Your task to perform on an android device: What's the weather? Image 0: 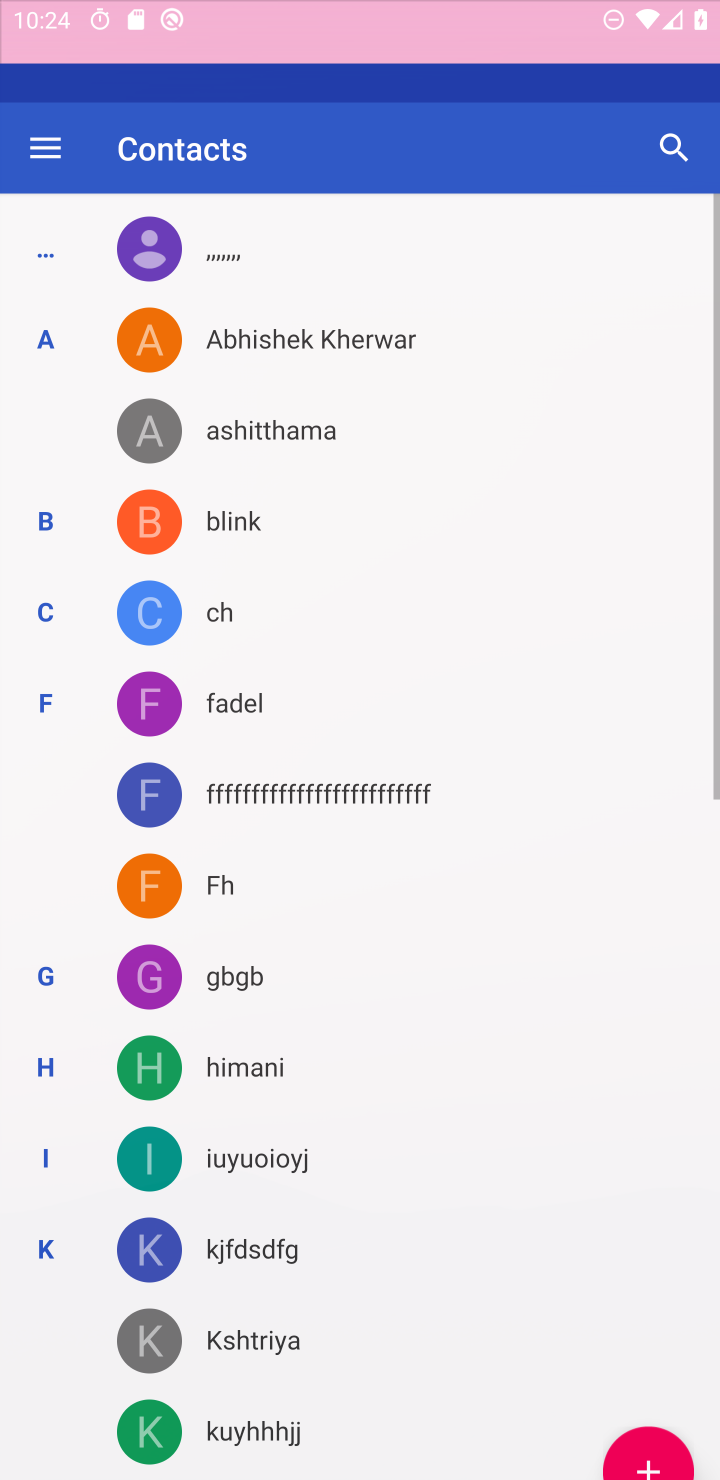
Step 0: press home button
Your task to perform on an android device: What's the weather? Image 1: 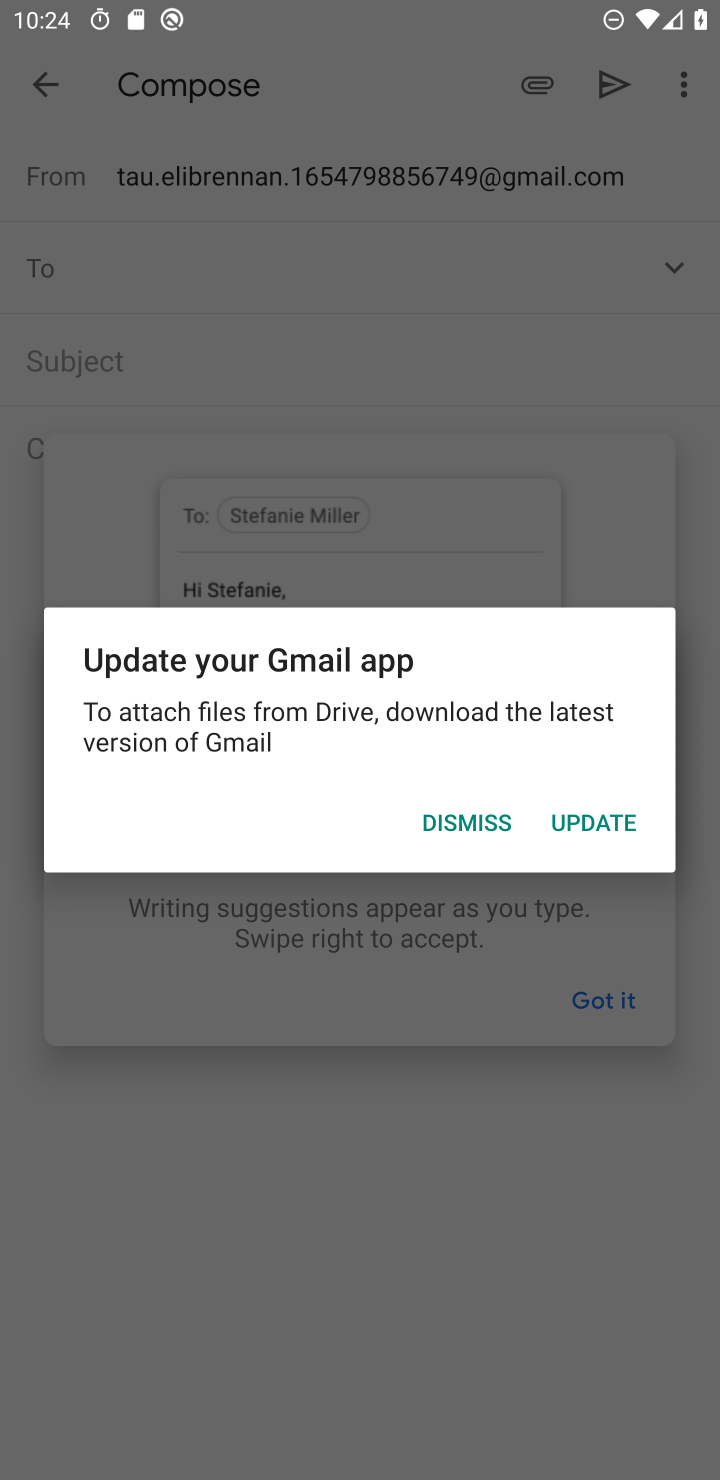
Step 1: press home button
Your task to perform on an android device: What's the weather? Image 2: 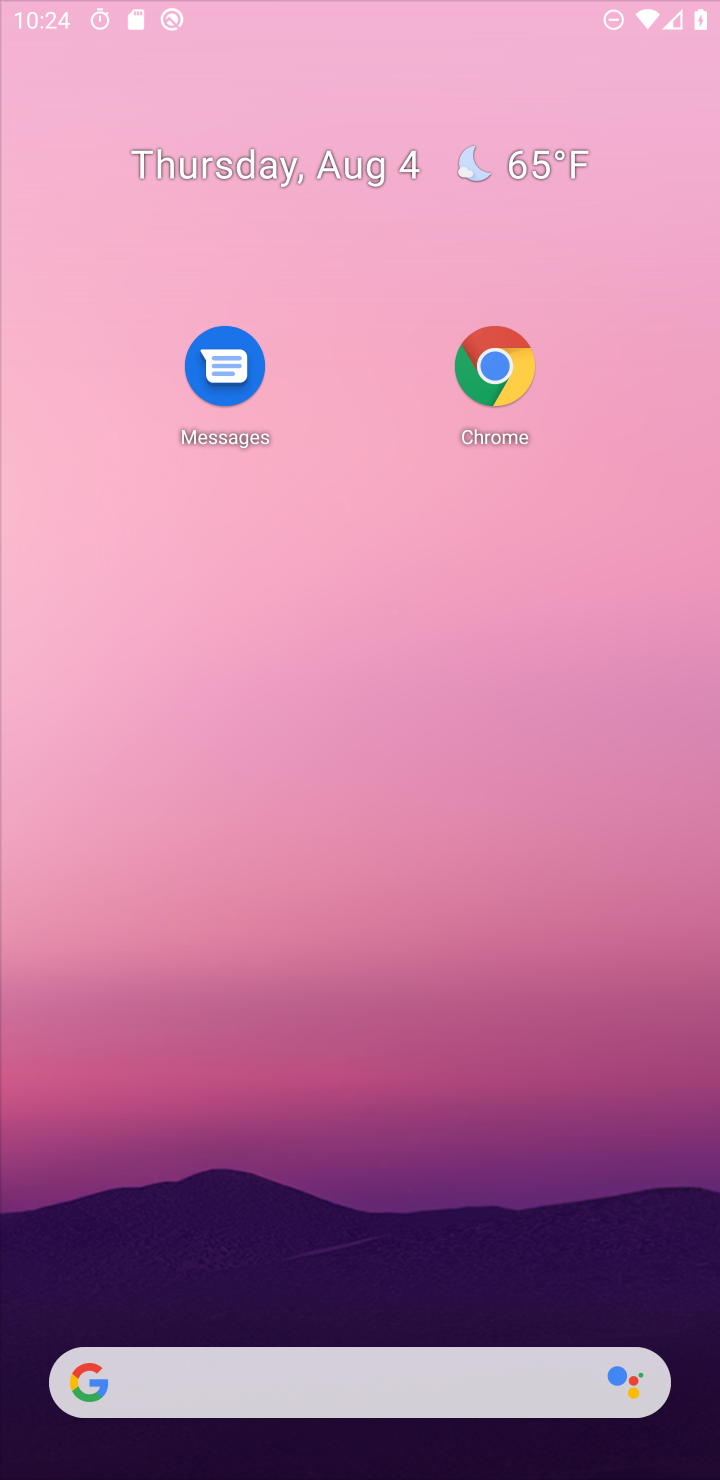
Step 2: click (198, 1391)
Your task to perform on an android device: What's the weather? Image 3: 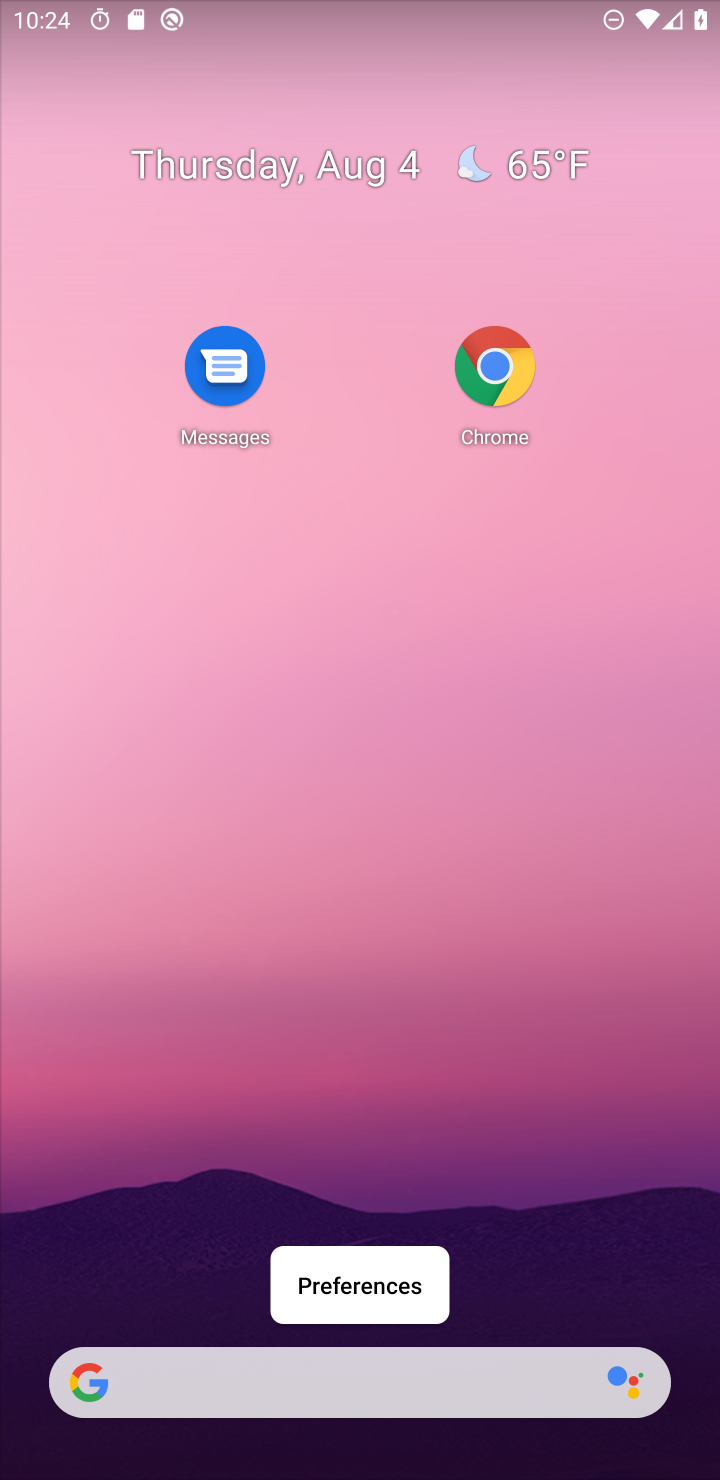
Step 3: click (198, 1379)
Your task to perform on an android device: What's the weather? Image 4: 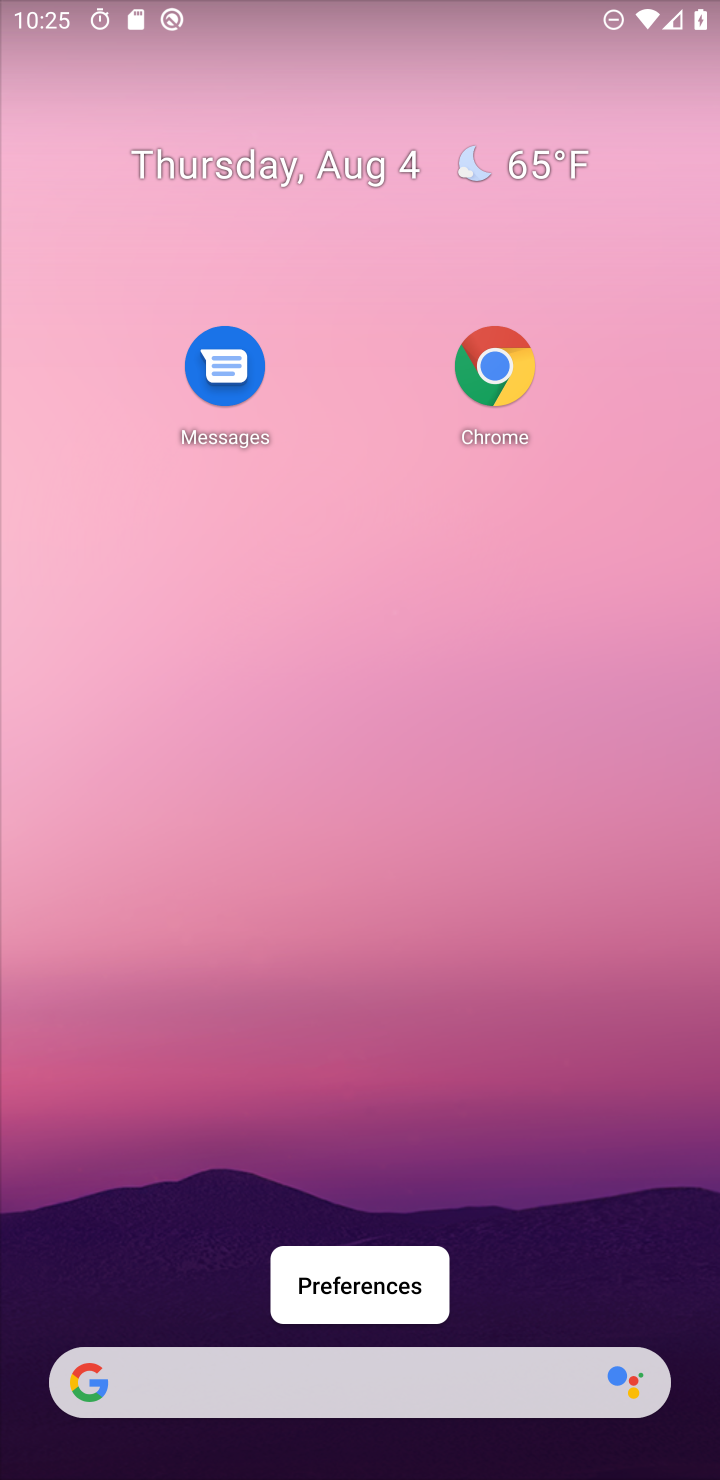
Step 4: click (341, 815)
Your task to perform on an android device: What's the weather? Image 5: 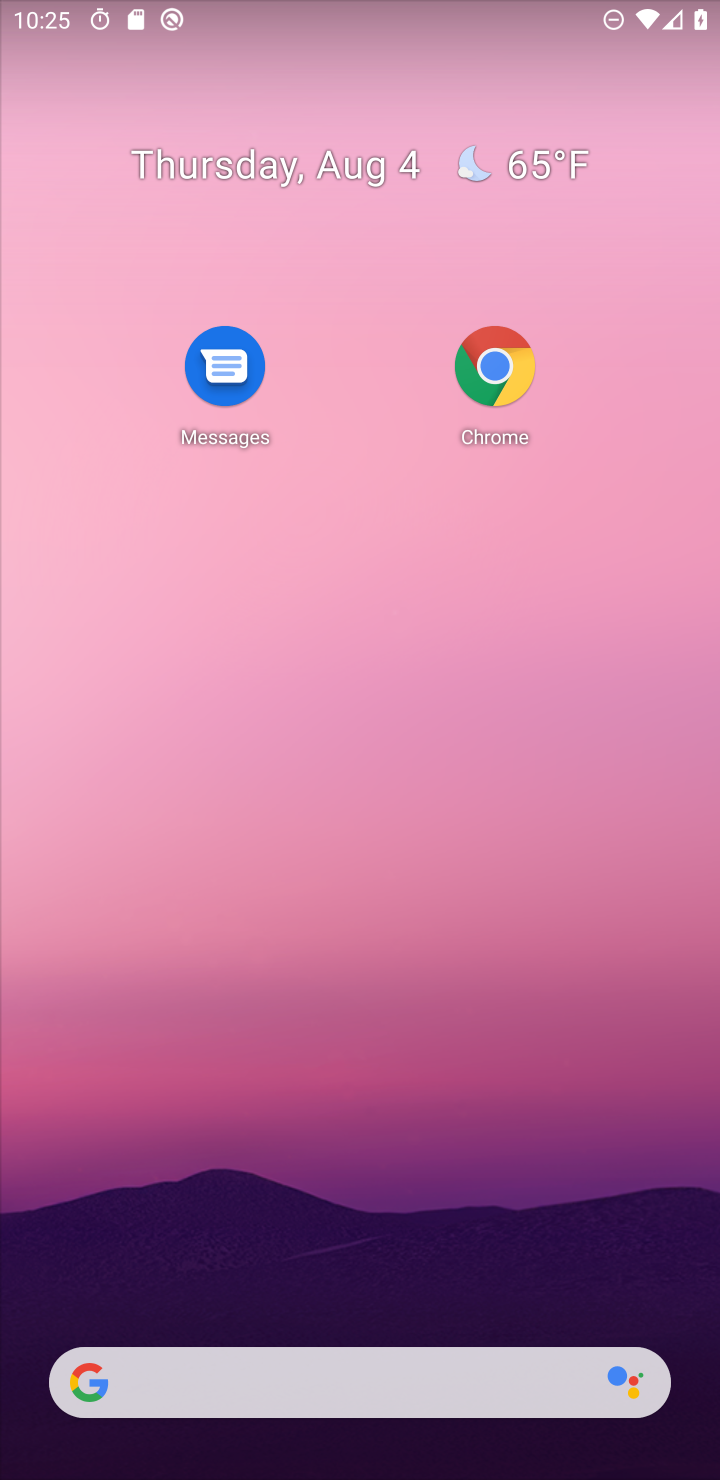
Step 5: drag from (277, 1302) to (246, 284)
Your task to perform on an android device: What's the weather? Image 6: 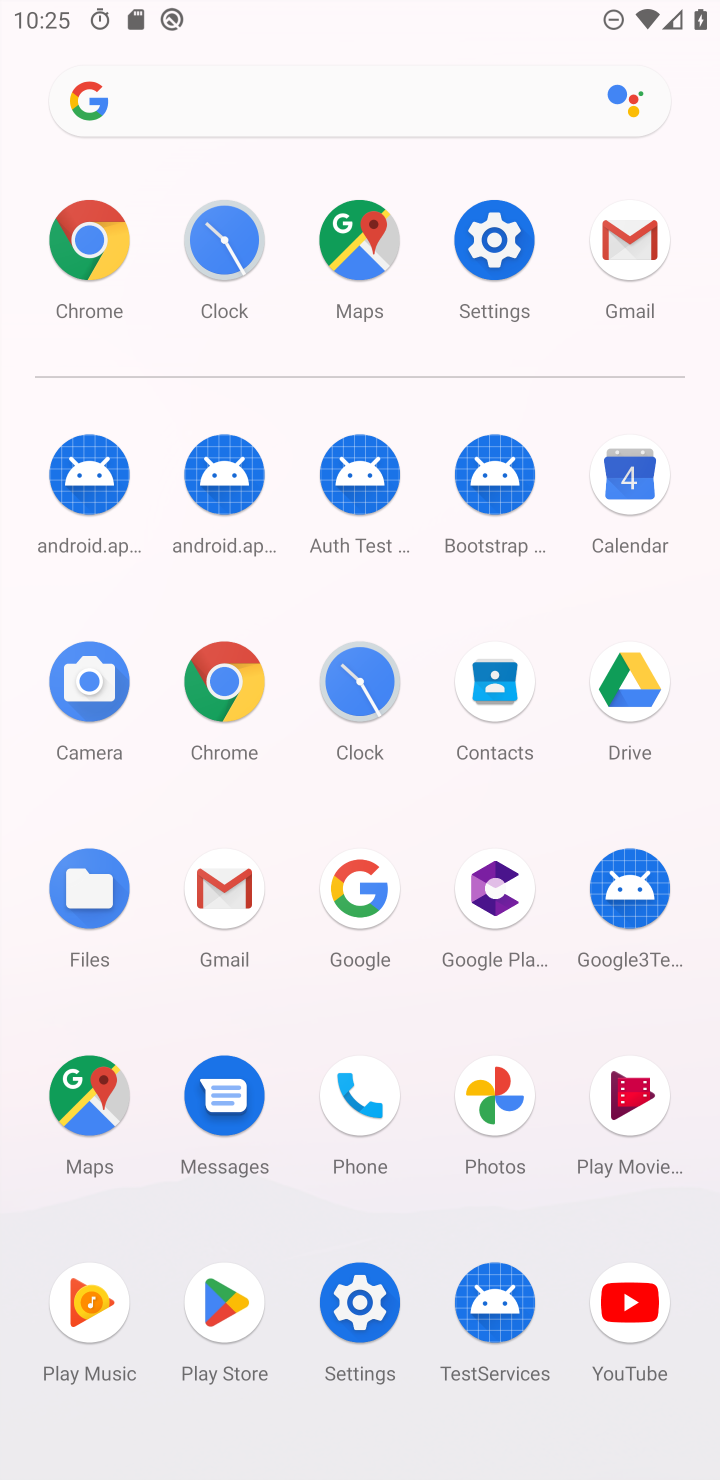
Step 6: click (180, 93)
Your task to perform on an android device: What's the weather? Image 7: 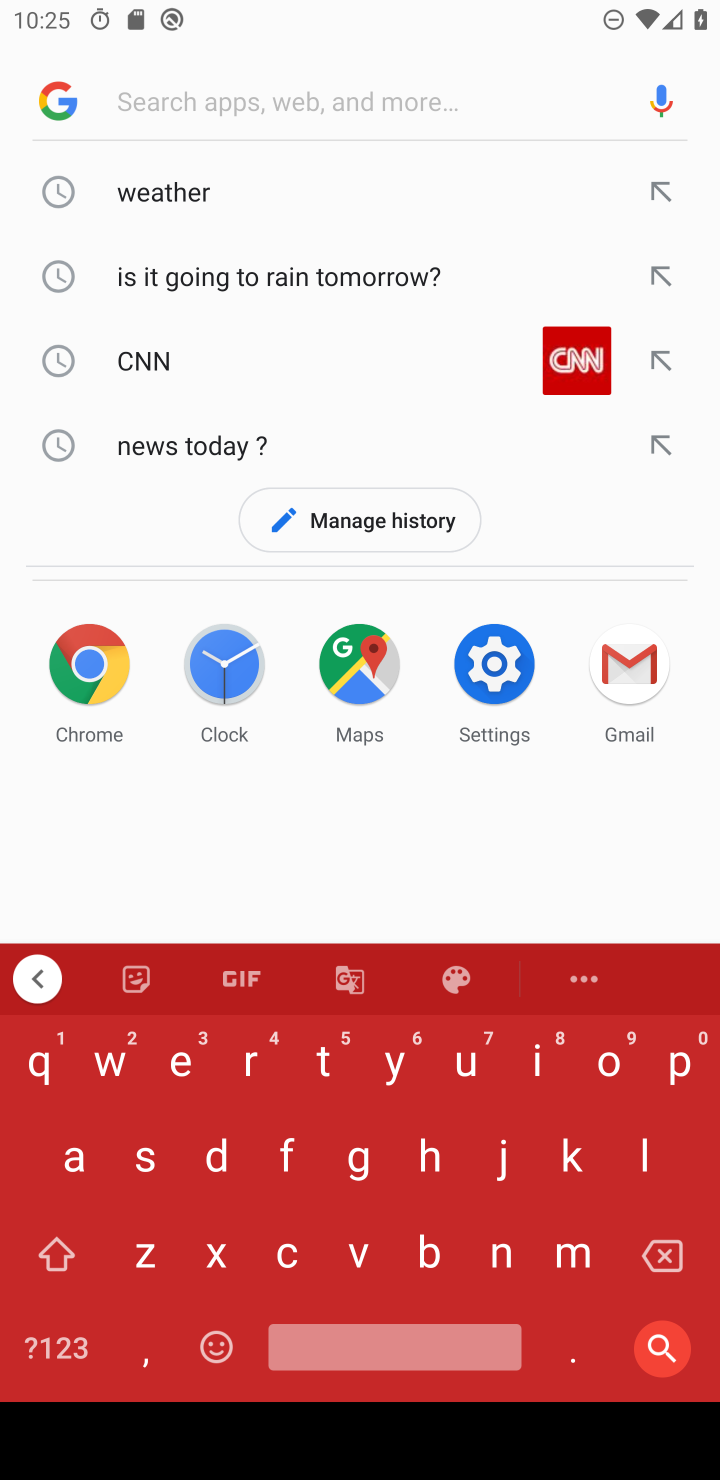
Step 7: click (147, 198)
Your task to perform on an android device: What's the weather? Image 8: 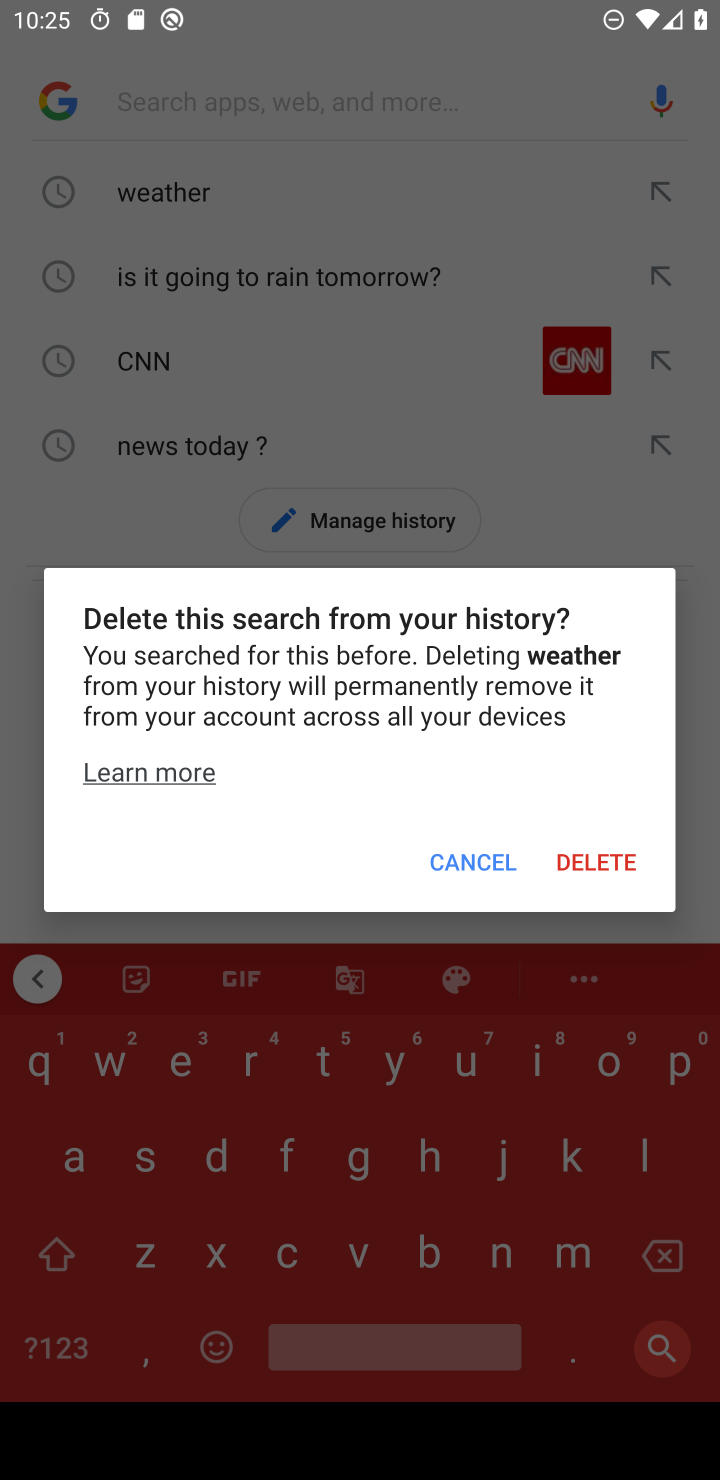
Step 8: click (492, 854)
Your task to perform on an android device: What's the weather? Image 9: 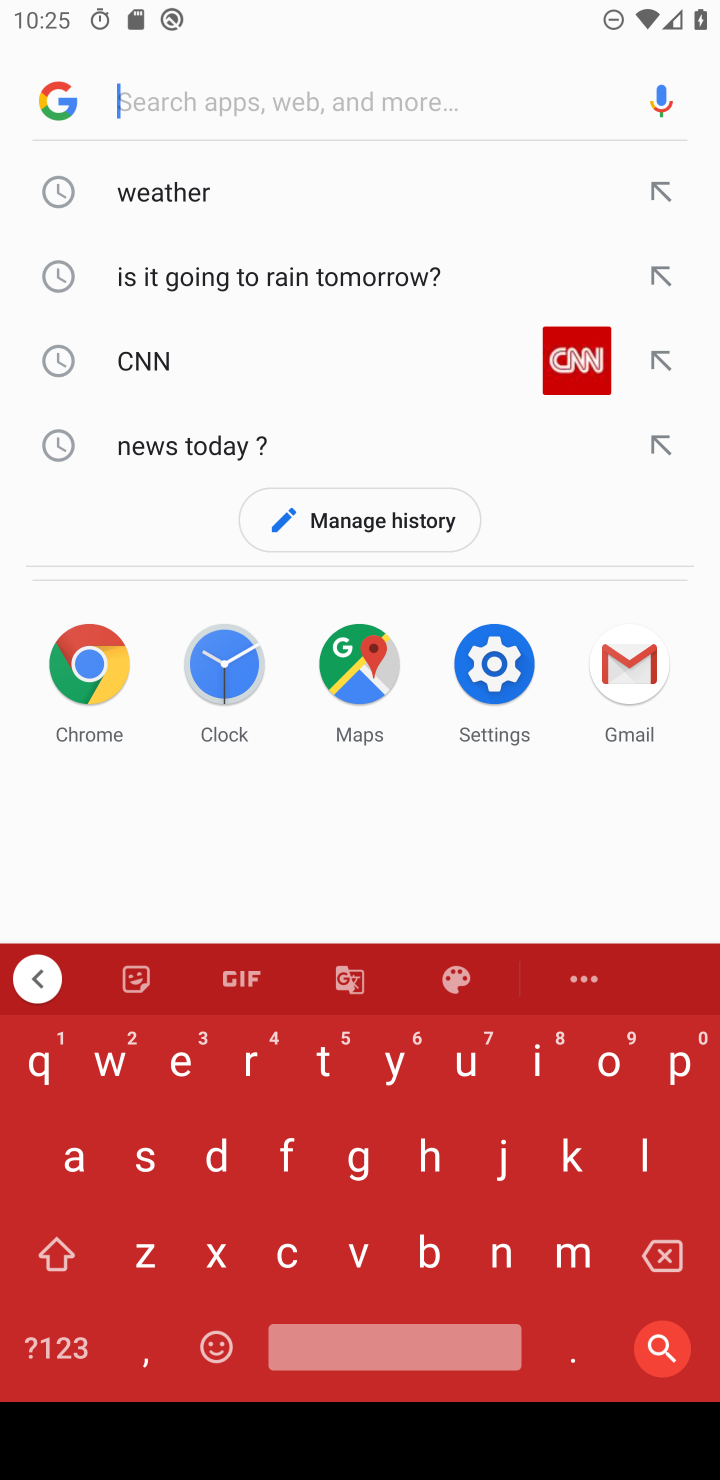
Step 9: click (188, 207)
Your task to perform on an android device: What's the weather? Image 10: 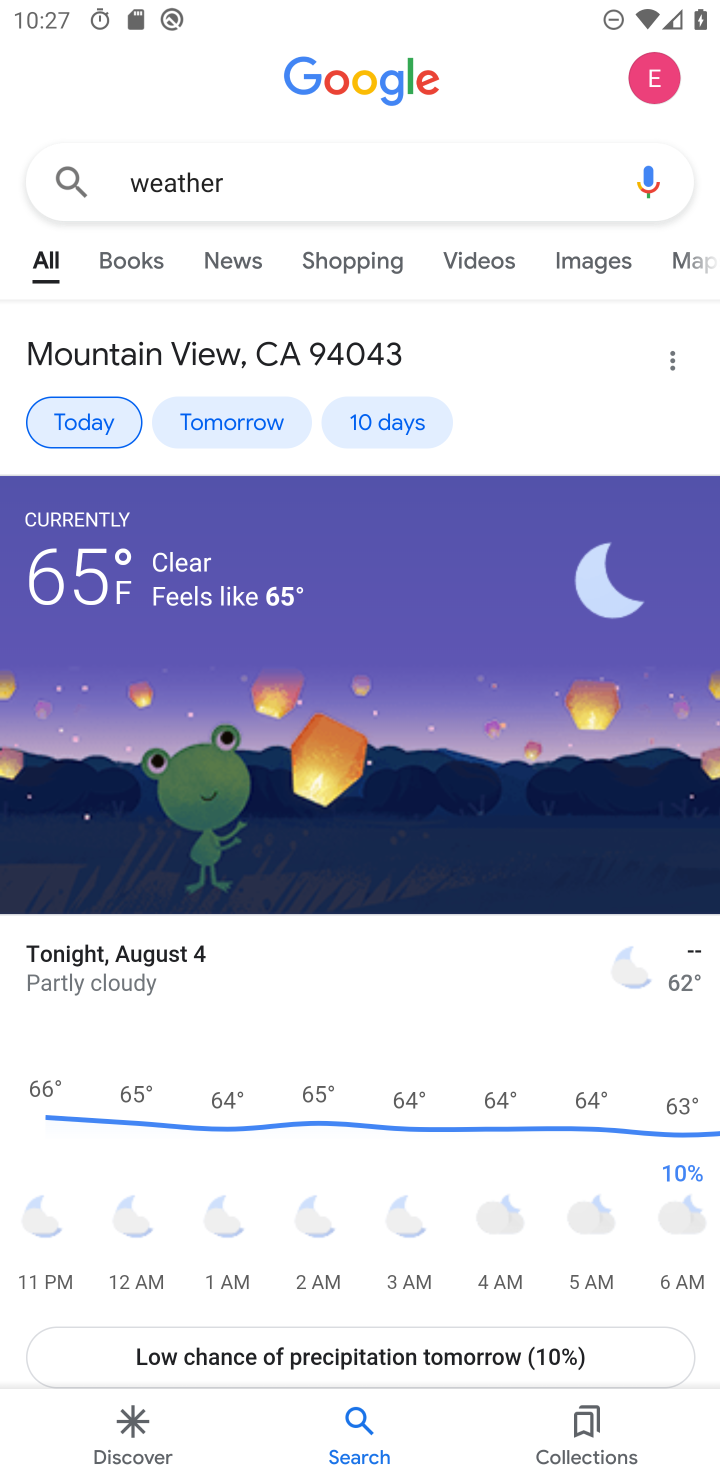
Step 10: task complete